Your task to perform on an android device: Open the Play Movies app and select the watchlist tab. Image 0: 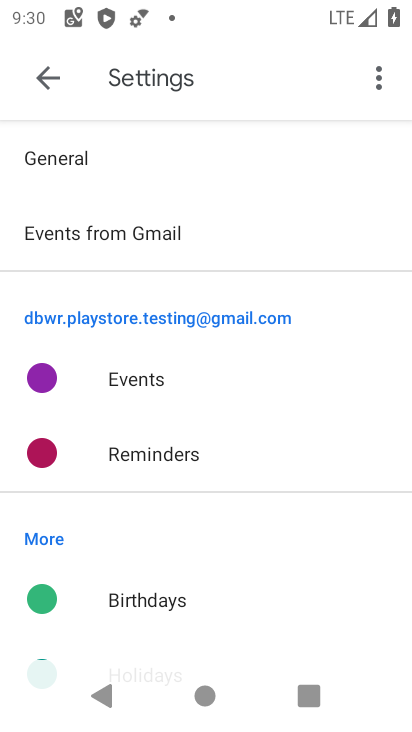
Step 0: press home button
Your task to perform on an android device: Open the Play Movies app and select the watchlist tab. Image 1: 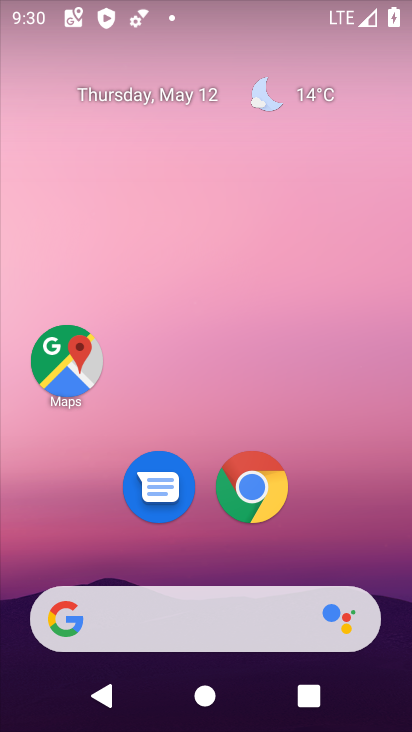
Step 1: drag from (90, 529) to (262, 153)
Your task to perform on an android device: Open the Play Movies app and select the watchlist tab. Image 2: 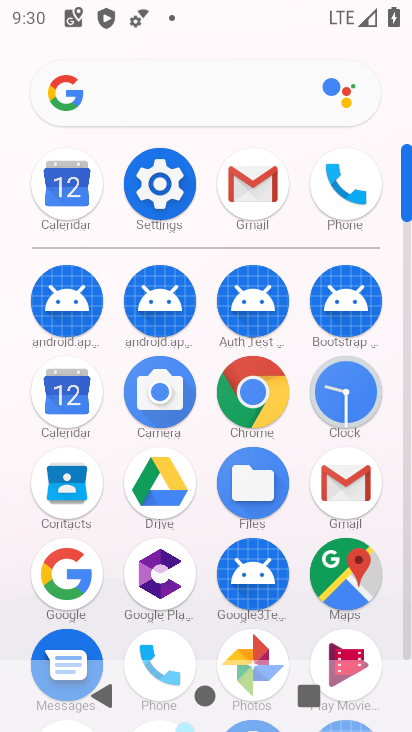
Step 2: click (330, 644)
Your task to perform on an android device: Open the Play Movies app and select the watchlist tab. Image 3: 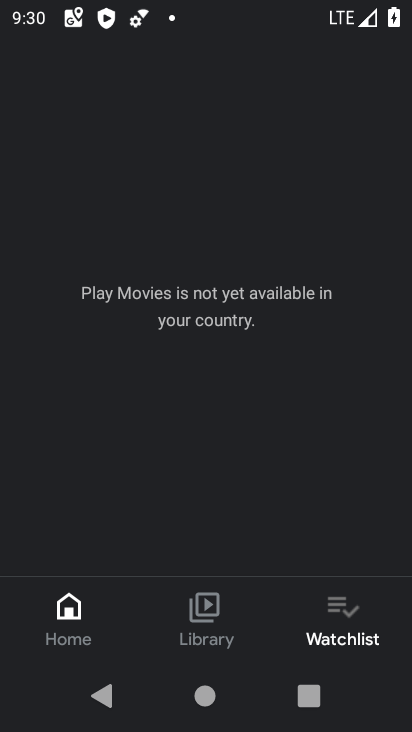
Step 3: click (326, 628)
Your task to perform on an android device: Open the Play Movies app and select the watchlist tab. Image 4: 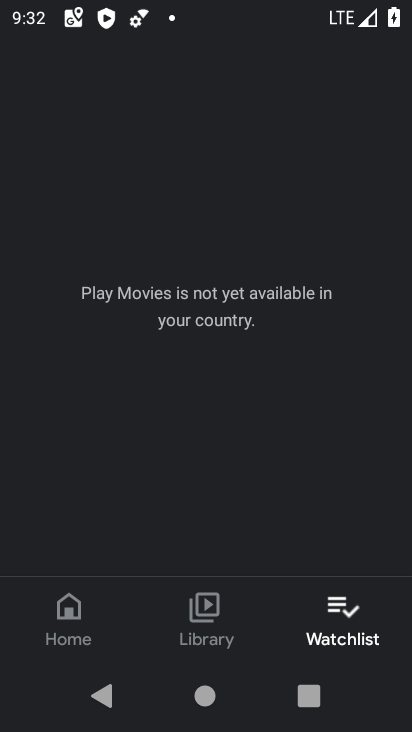
Step 4: task complete